Your task to perform on an android device: see tabs open on other devices in the chrome app Image 0: 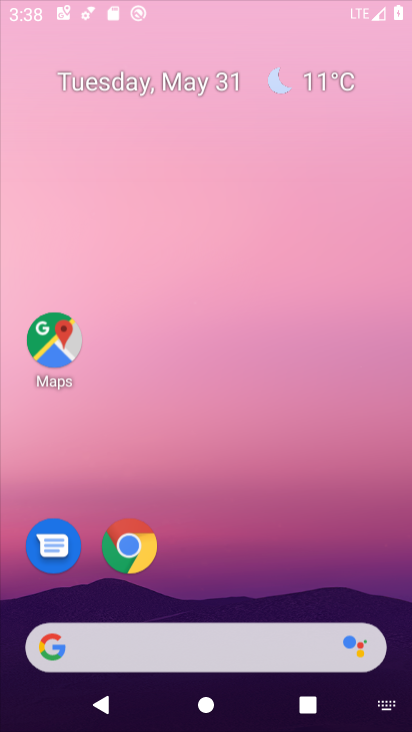
Step 0: press home button
Your task to perform on an android device: see tabs open on other devices in the chrome app Image 1: 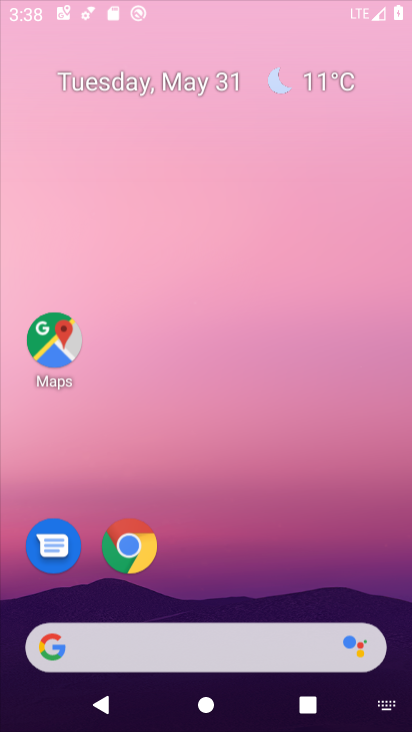
Step 1: click (156, 9)
Your task to perform on an android device: see tabs open on other devices in the chrome app Image 2: 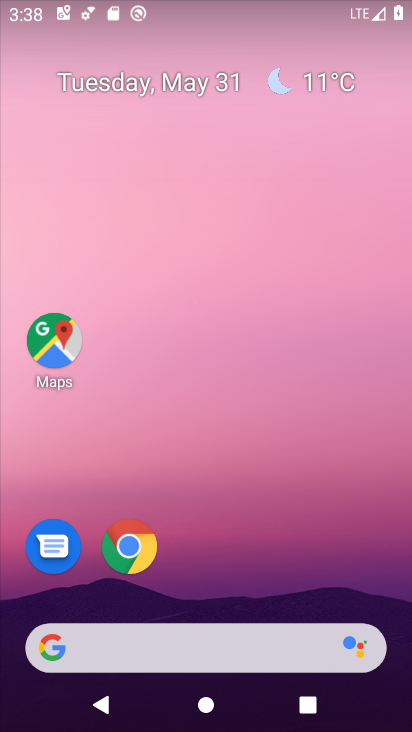
Step 2: drag from (205, 547) to (228, 19)
Your task to perform on an android device: see tabs open on other devices in the chrome app Image 3: 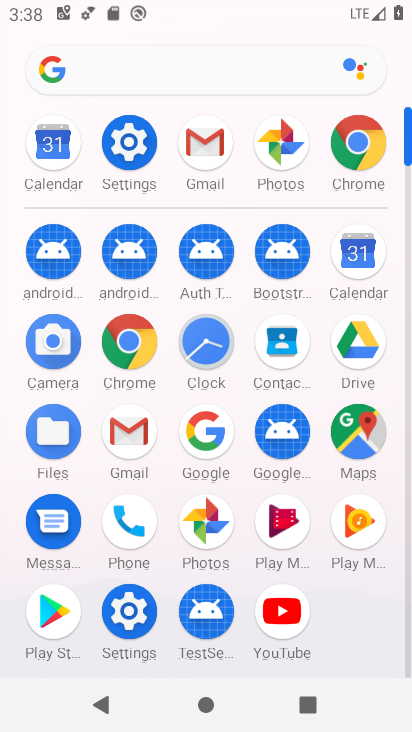
Step 3: click (138, 344)
Your task to perform on an android device: see tabs open on other devices in the chrome app Image 4: 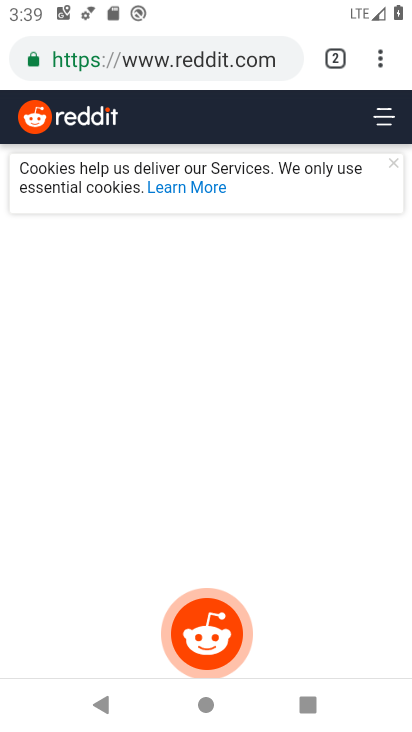
Step 4: click (386, 58)
Your task to perform on an android device: see tabs open on other devices in the chrome app Image 5: 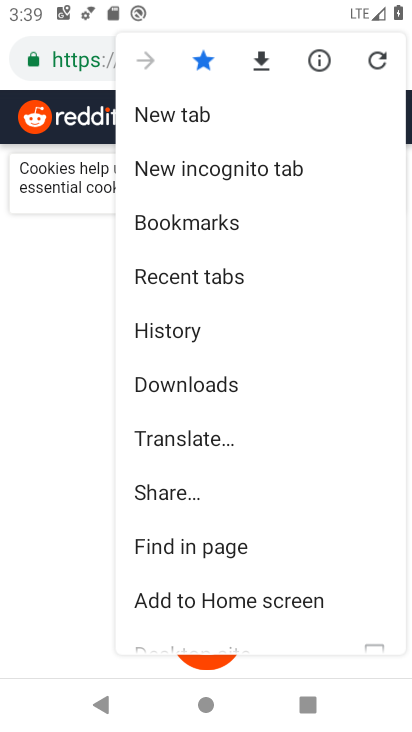
Step 5: click (226, 276)
Your task to perform on an android device: see tabs open on other devices in the chrome app Image 6: 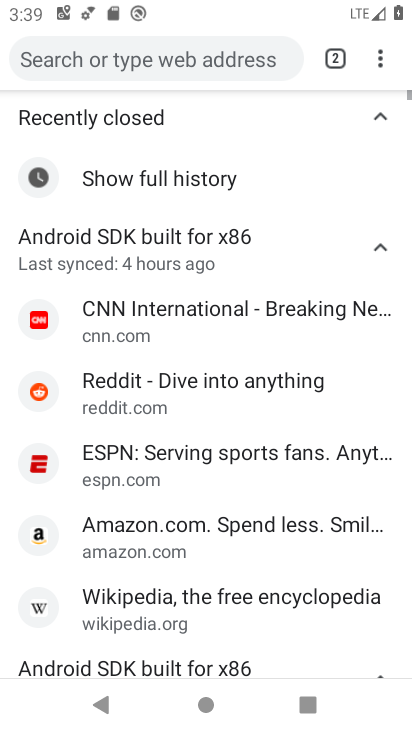
Step 6: task complete